Your task to perform on an android device: Toggle the flashlight Image 0: 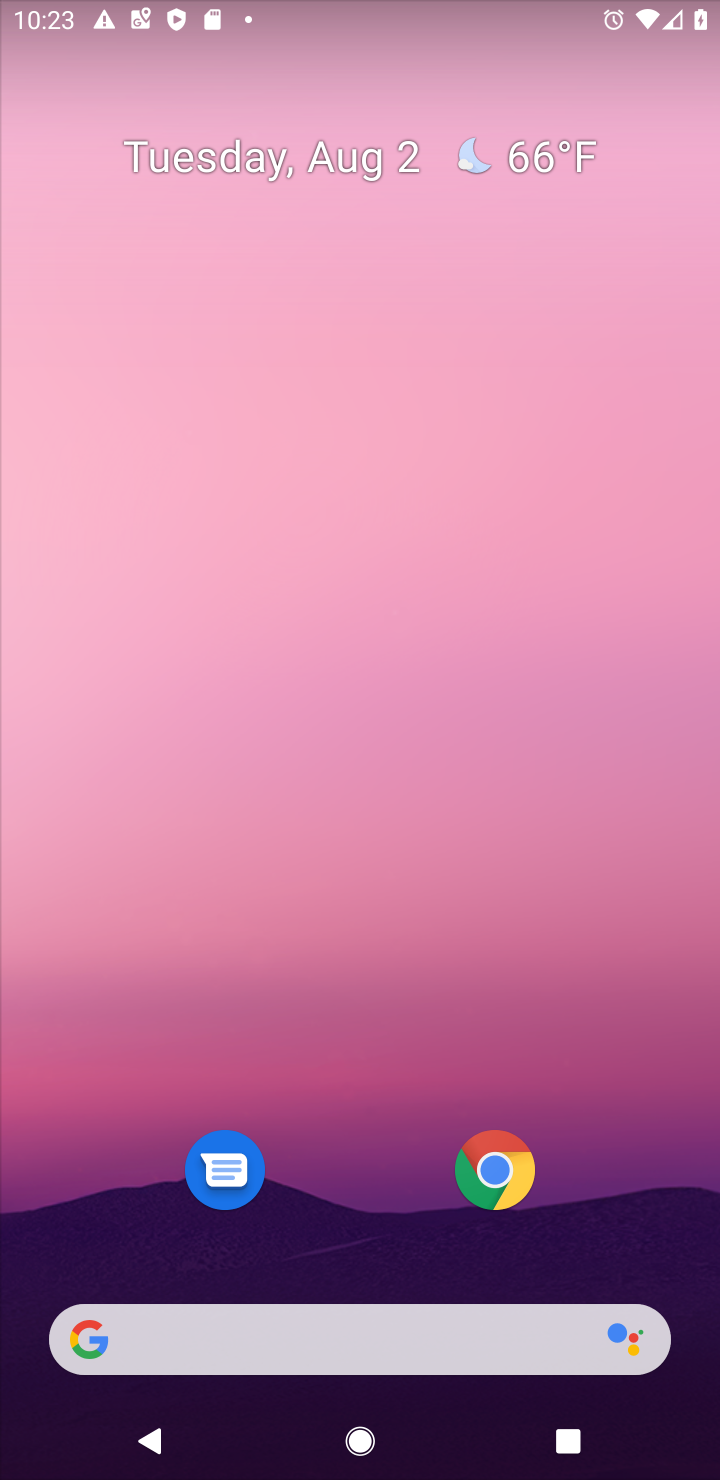
Step 0: click (310, 318)
Your task to perform on an android device: Toggle the flashlight Image 1: 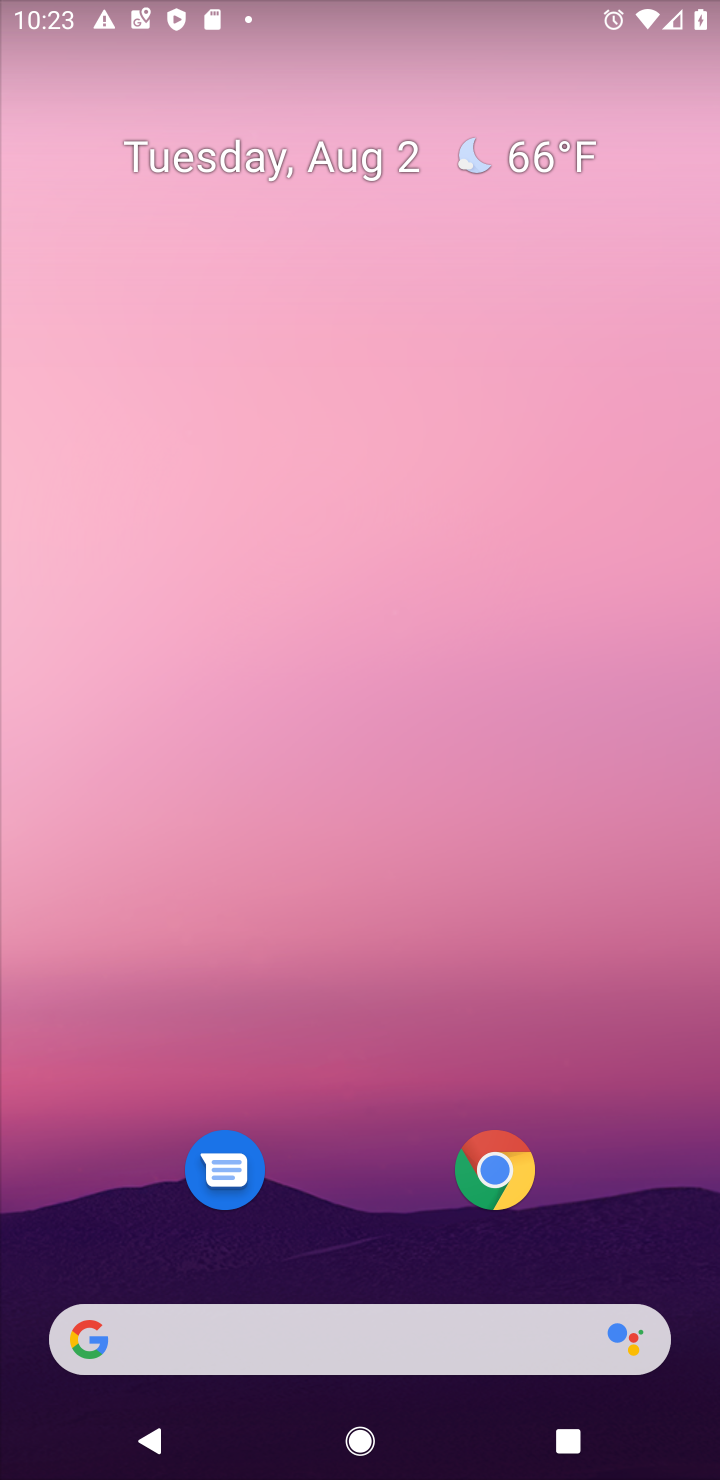
Step 1: drag from (320, 704) to (339, 52)
Your task to perform on an android device: Toggle the flashlight Image 2: 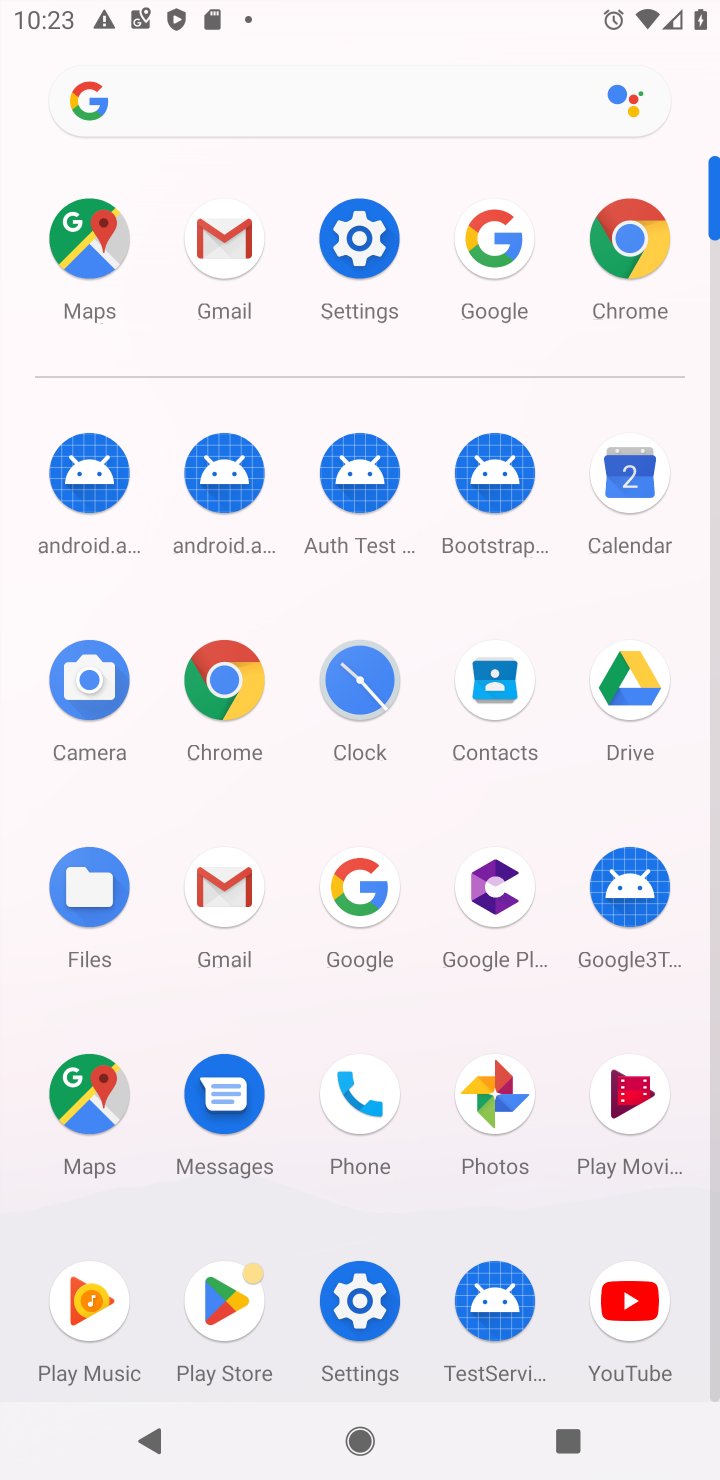
Step 2: click (357, 246)
Your task to perform on an android device: Toggle the flashlight Image 3: 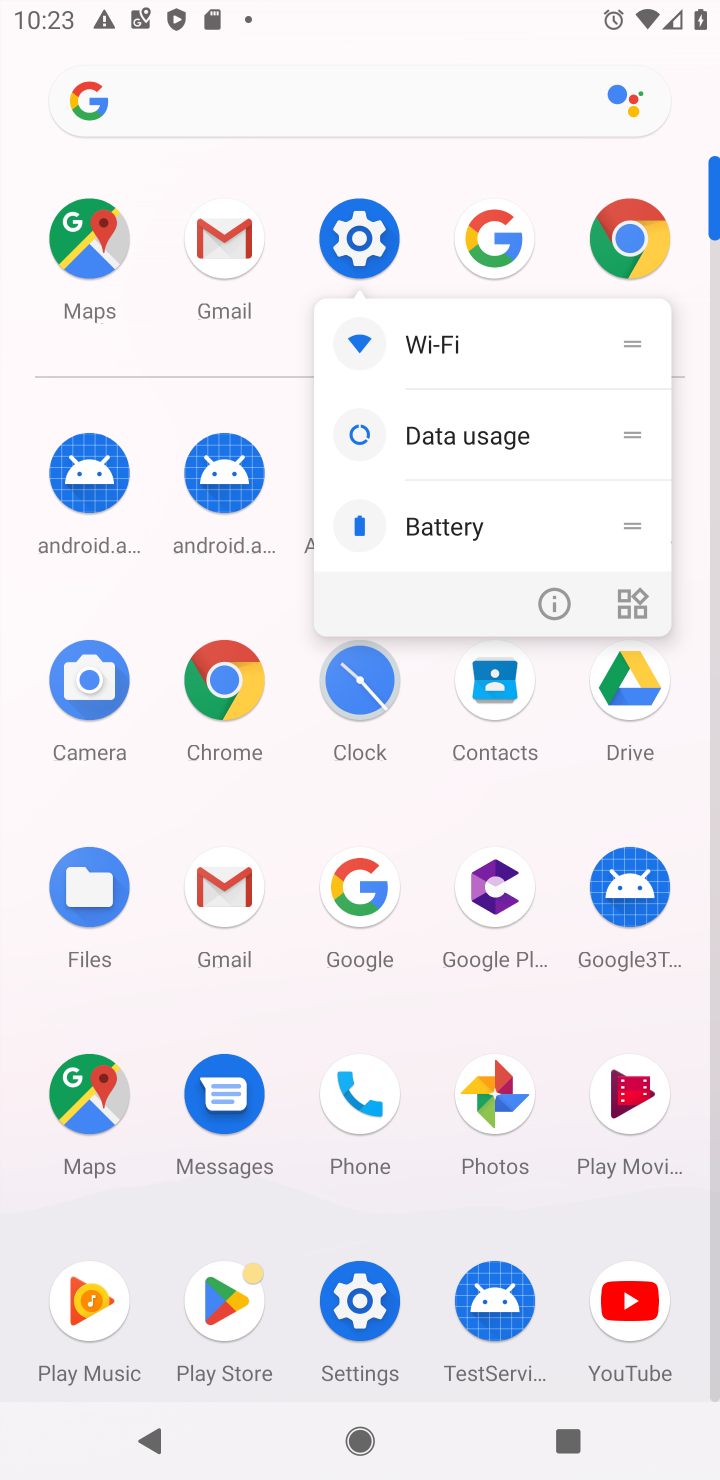
Step 3: click (357, 246)
Your task to perform on an android device: Toggle the flashlight Image 4: 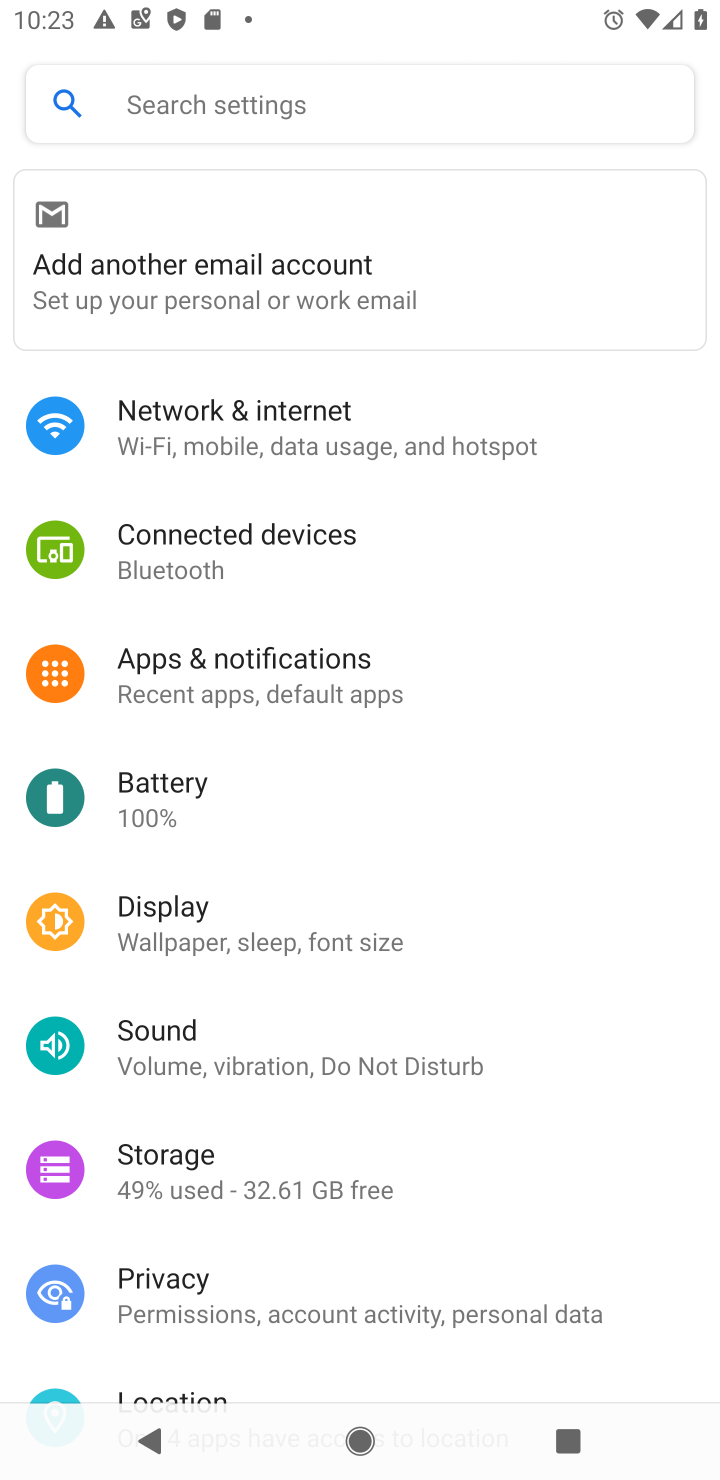
Step 4: task complete